Your task to perform on an android device: turn on translation in the chrome app Image 0: 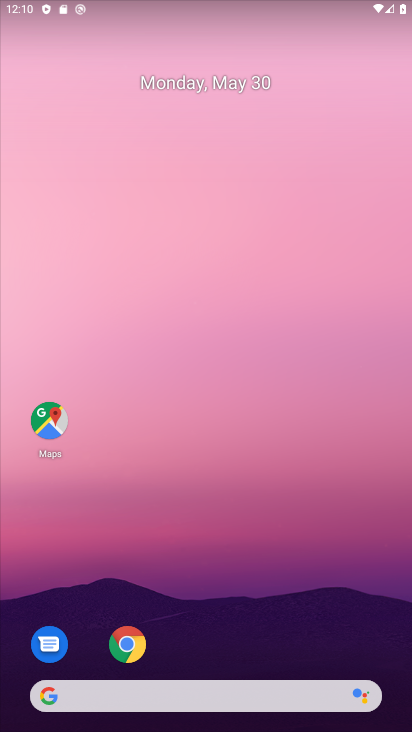
Step 0: click (131, 652)
Your task to perform on an android device: turn on translation in the chrome app Image 1: 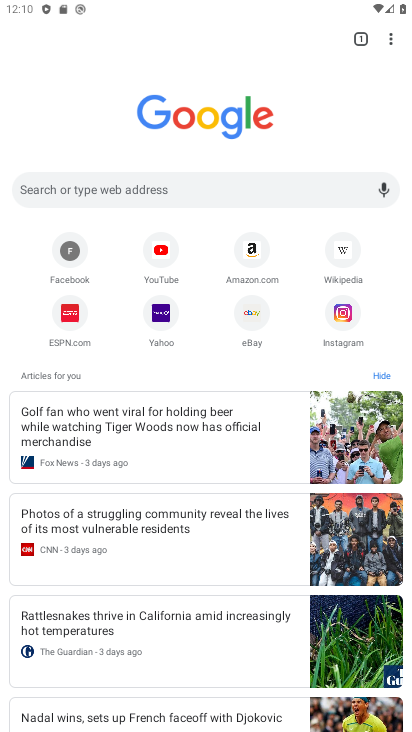
Step 1: drag from (394, 52) to (272, 325)
Your task to perform on an android device: turn on translation in the chrome app Image 2: 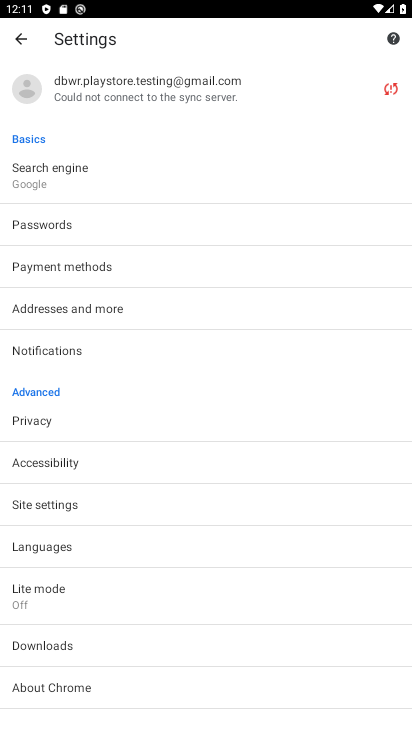
Step 2: click (86, 548)
Your task to perform on an android device: turn on translation in the chrome app Image 3: 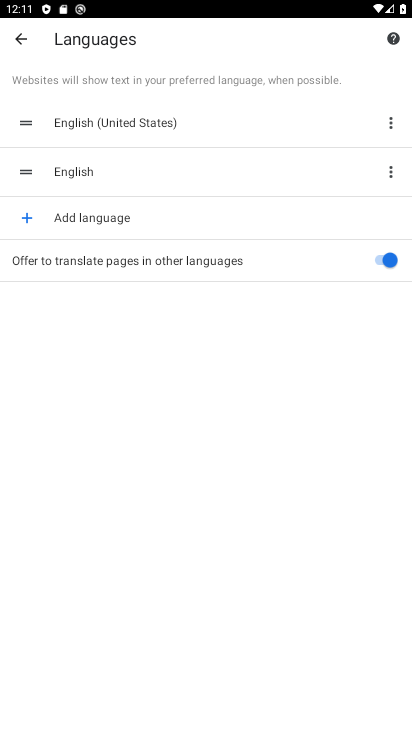
Step 3: task complete